Your task to perform on an android device: delete the emails in spam in the gmail app Image 0: 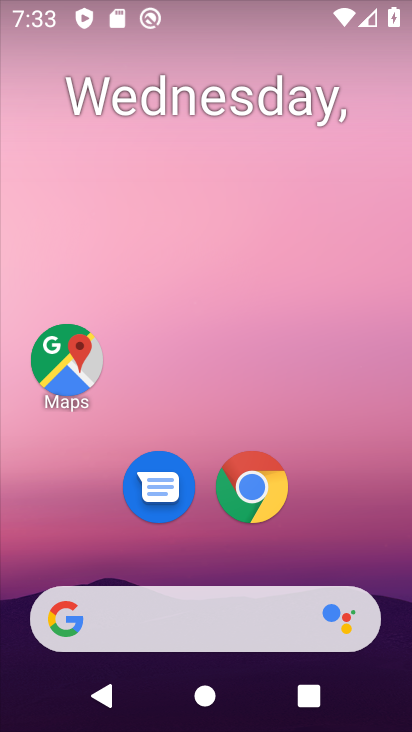
Step 0: drag from (340, 559) to (216, 8)
Your task to perform on an android device: delete the emails in spam in the gmail app Image 1: 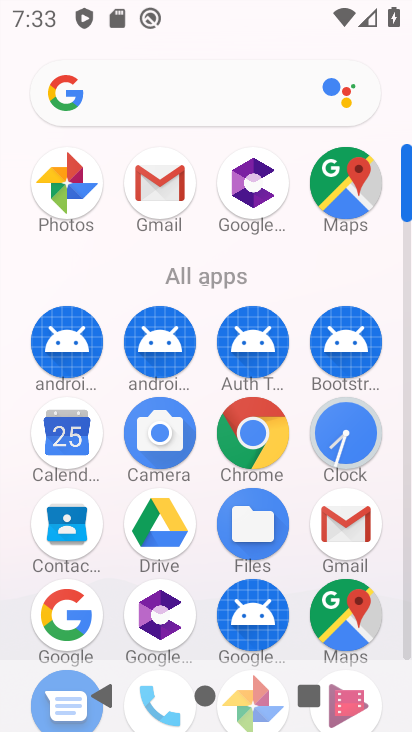
Step 1: click (164, 187)
Your task to perform on an android device: delete the emails in spam in the gmail app Image 2: 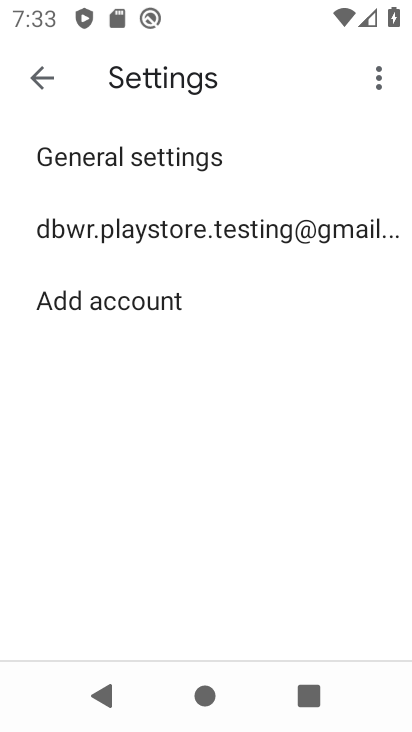
Step 2: click (40, 84)
Your task to perform on an android device: delete the emails in spam in the gmail app Image 3: 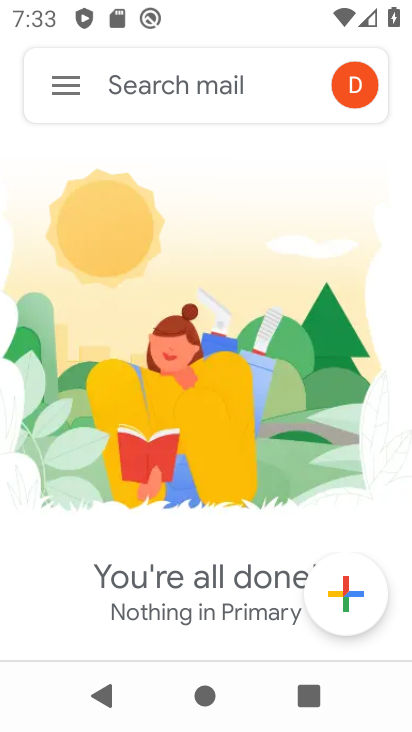
Step 3: click (56, 97)
Your task to perform on an android device: delete the emails in spam in the gmail app Image 4: 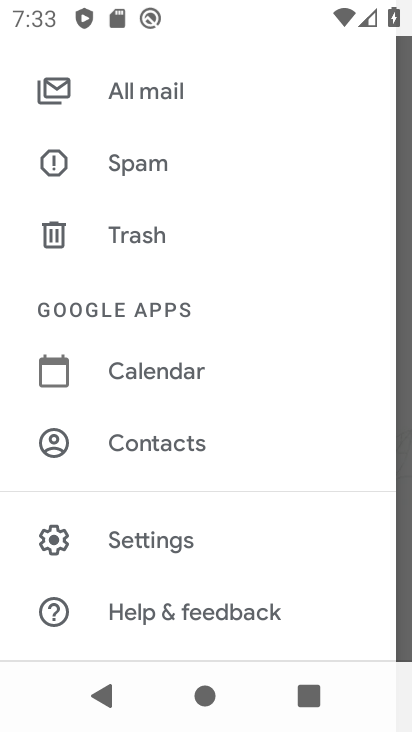
Step 4: click (86, 158)
Your task to perform on an android device: delete the emails in spam in the gmail app Image 5: 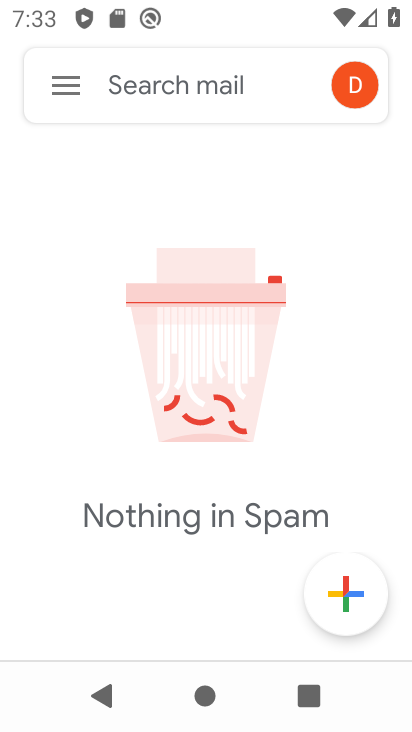
Step 5: task complete